Your task to perform on an android device: Open notification settings Image 0: 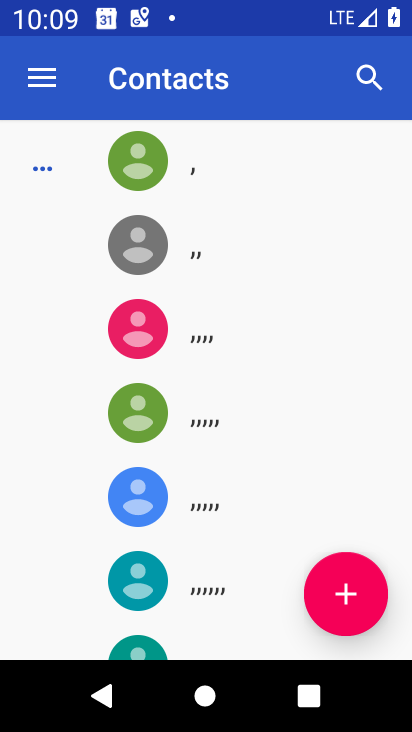
Step 0: press back button
Your task to perform on an android device: Open notification settings Image 1: 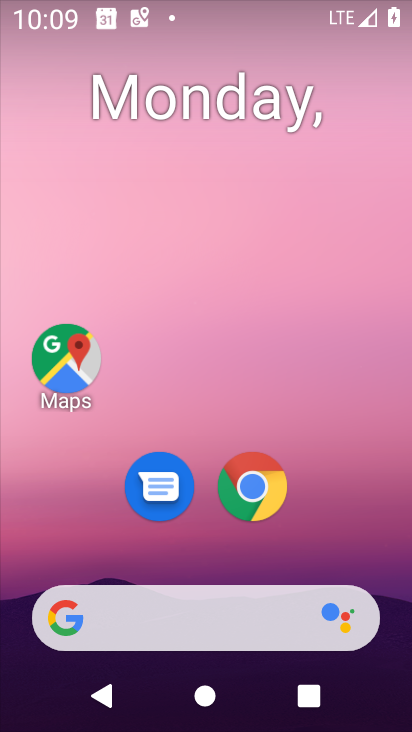
Step 1: drag from (367, 550) to (219, 12)
Your task to perform on an android device: Open notification settings Image 2: 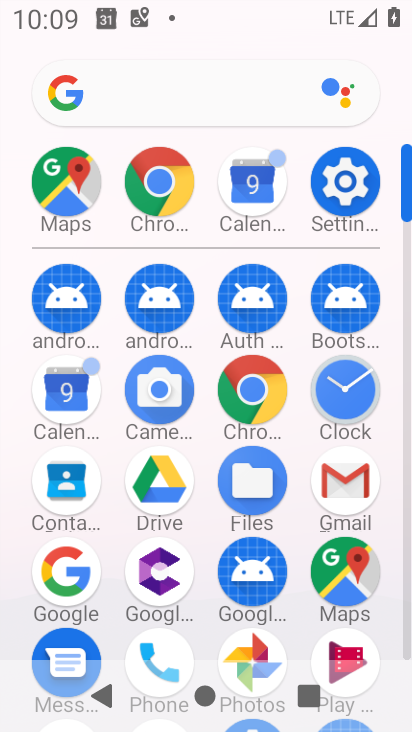
Step 2: drag from (24, 565) to (24, 225)
Your task to perform on an android device: Open notification settings Image 3: 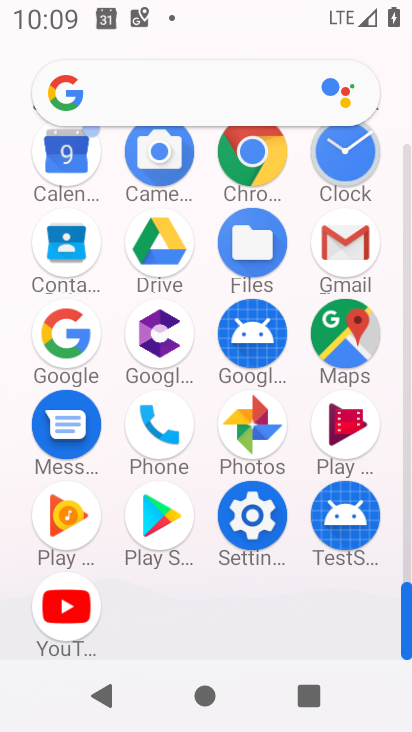
Step 3: click (248, 513)
Your task to perform on an android device: Open notification settings Image 4: 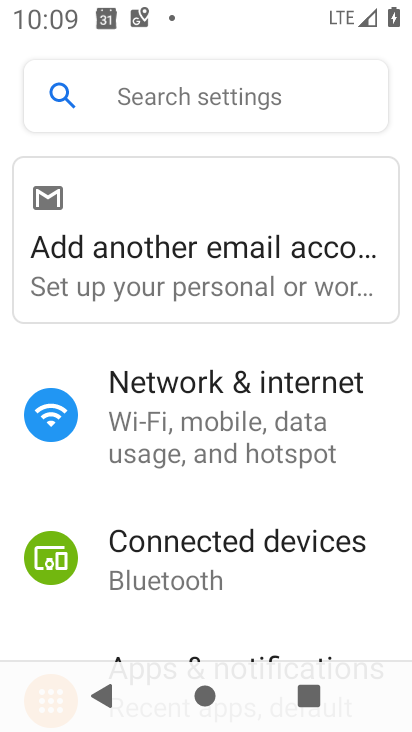
Step 4: drag from (267, 573) to (304, 162)
Your task to perform on an android device: Open notification settings Image 5: 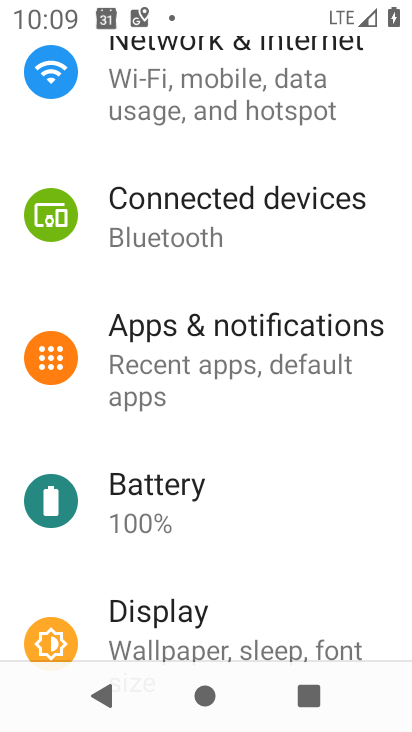
Step 5: click (250, 86)
Your task to perform on an android device: Open notification settings Image 6: 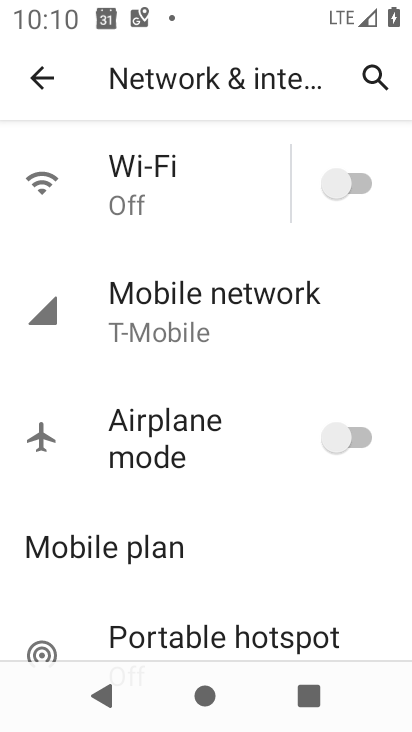
Step 6: drag from (214, 525) to (217, 262)
Your task to perform on an android device: Open notification settings Image 7: 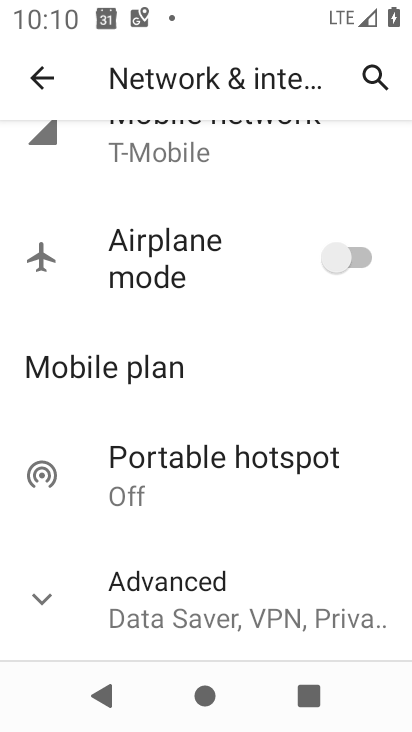
Step 7: press back button
Your task to perform on an android device: Open notification settings Image 8: 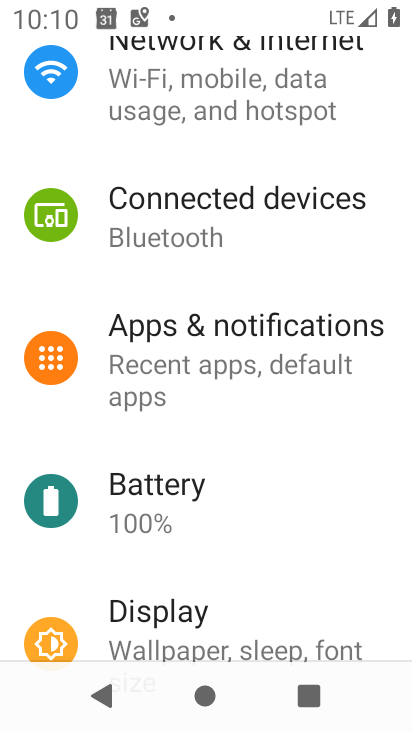
Step 8: click (310, 342)
Your task to perform on an android device: Open notification settings Image 9: 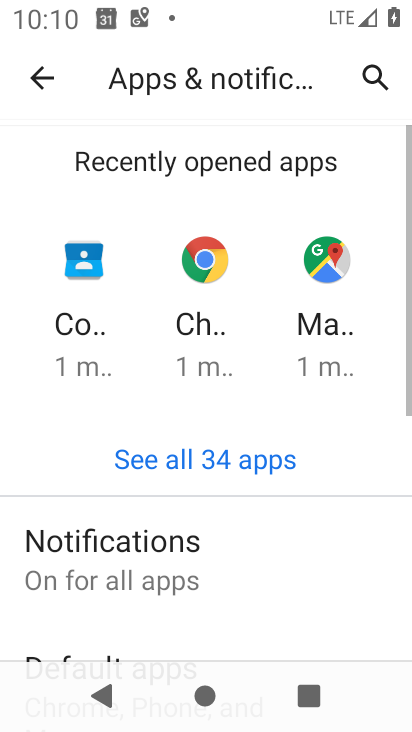
Step 9: drag from (268, 581) to (265, 137)
Your task to perform on an android device: Open notification settings Image 10: 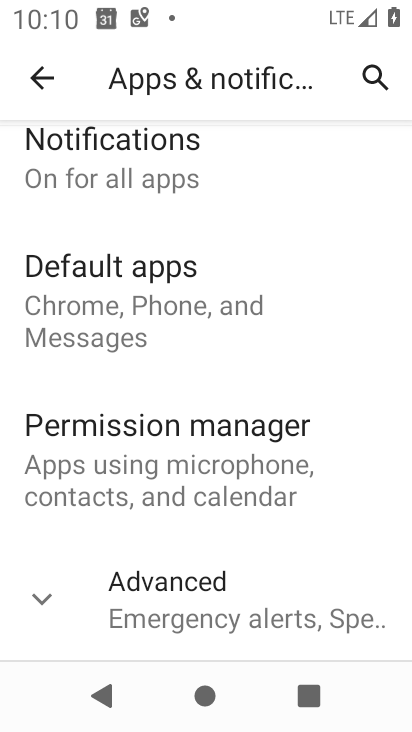
Step 10: drag from (243, 541) to (249, 172)
Your task to perform on an android device: Open notification settings Image 11: 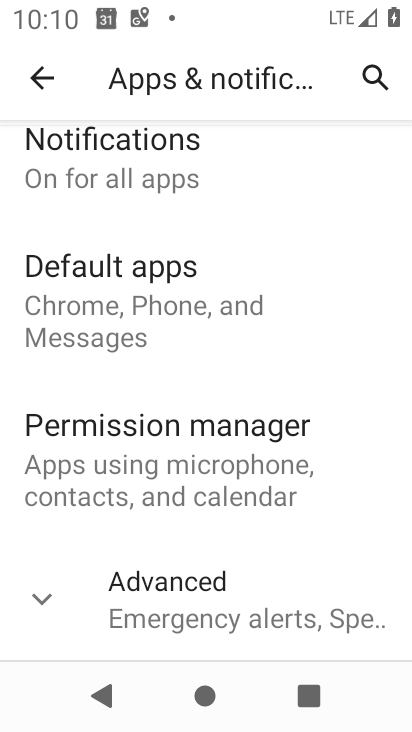
Step 11: click (43, 583)
Your task to perform on an android device: Open notification settings Image 12: 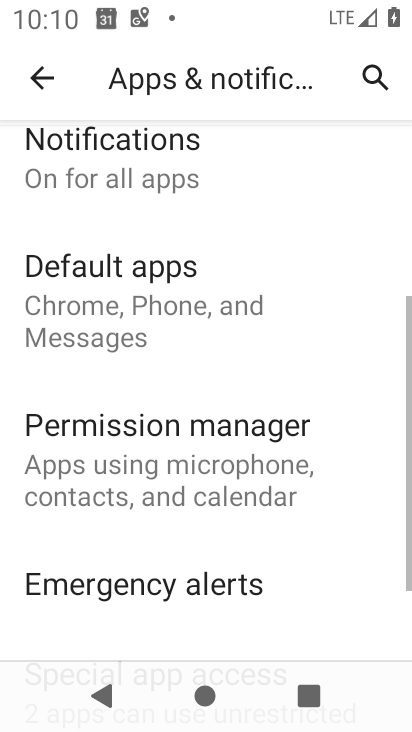
Step 12: task complete